Your task to perform on an android device: refresh tabs in the chrome app Image 0: 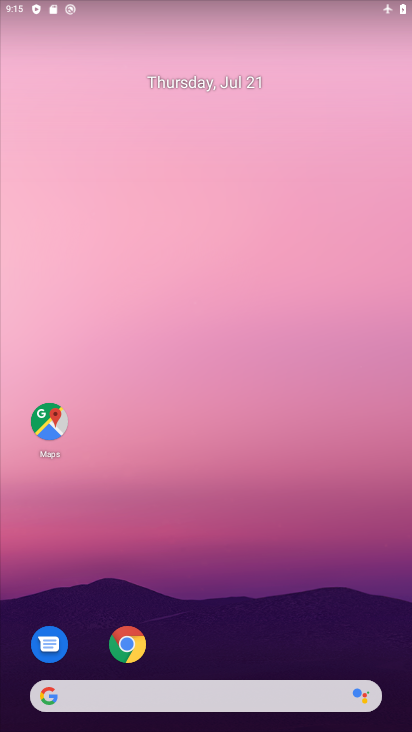
Step 0: click (127, 643)
Your task to perform on an android device: refresh tabs in the chrome app Image 1: 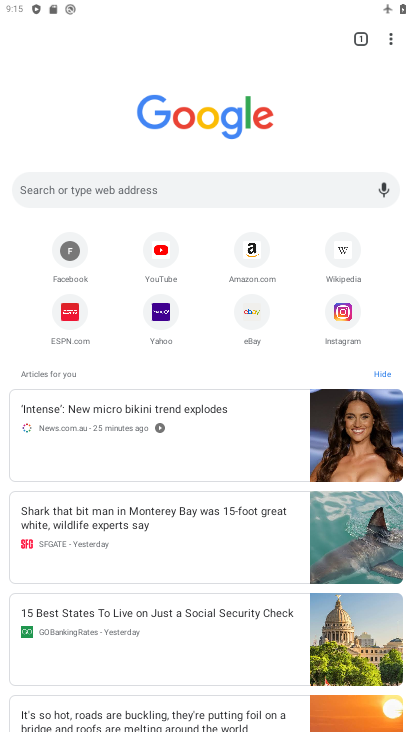
Step 1: click (379, 46)
Your task to perform on an android device: refresh tabs in the chrome app Image 2: 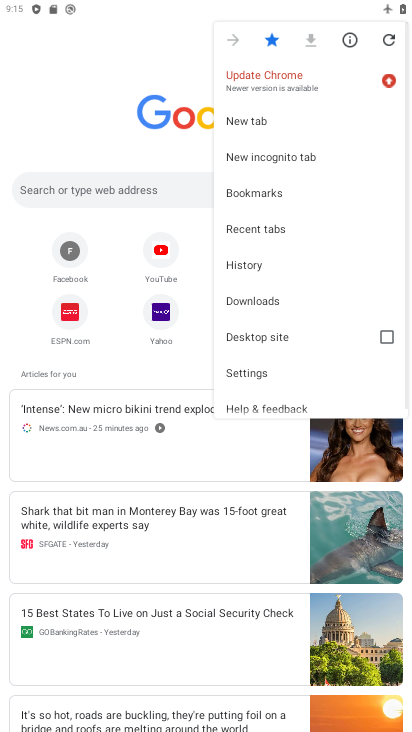
Step 2: click (381, 44)
Your task to perform on an android device: refresh tabs in the chrome app Image 3: 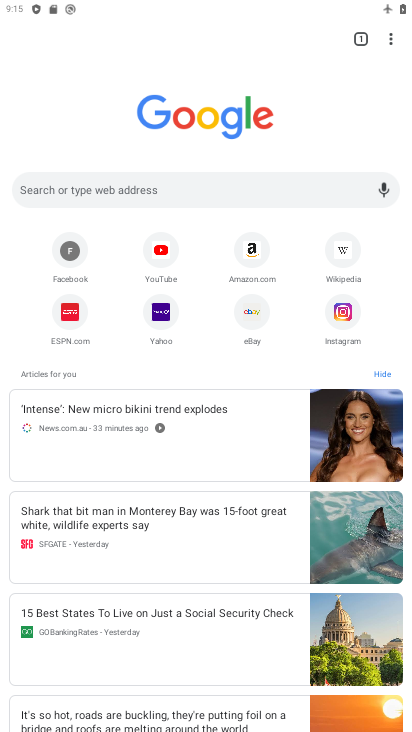
Step 3: task complete